Your task to perform on an android device: change the clock style Image 0: 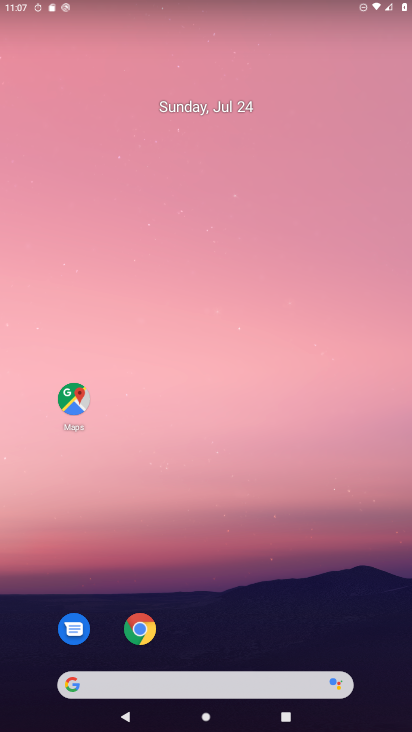
Step 0: drag from (211, 634) to (353, 150)
Your task to perform on an android device: change the clock style Image 1: 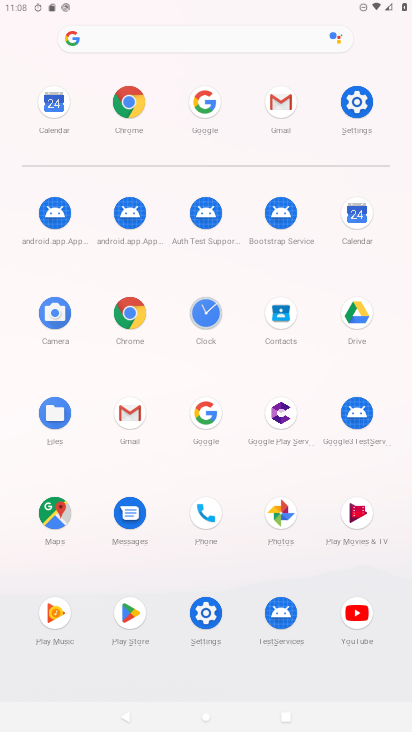
Step 1: click (211, 334)
Your task to perform on an android device: change the clock style Image 2: 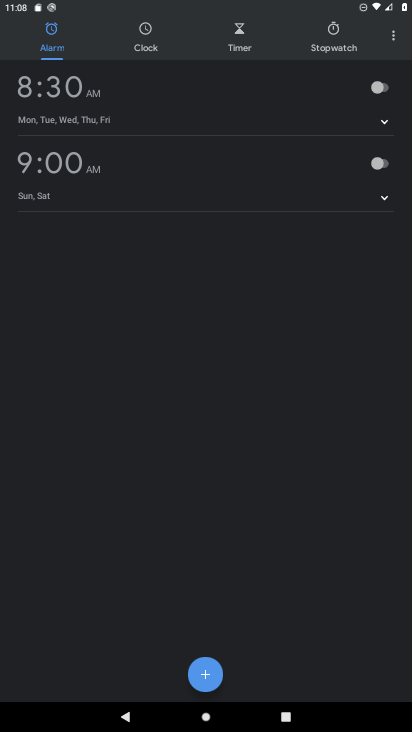
Step 2: click (398, 41)
Your task to perform on an android device: change the clock style Image 3: 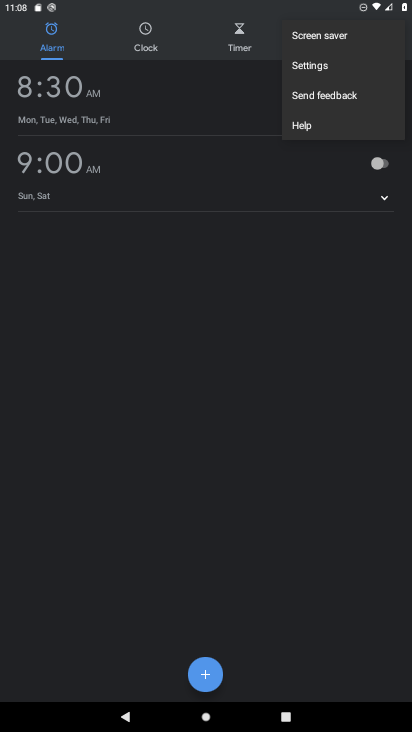
Step 3: click (298, 71)
Your task to perform on an android device: change the clock style Image 4: 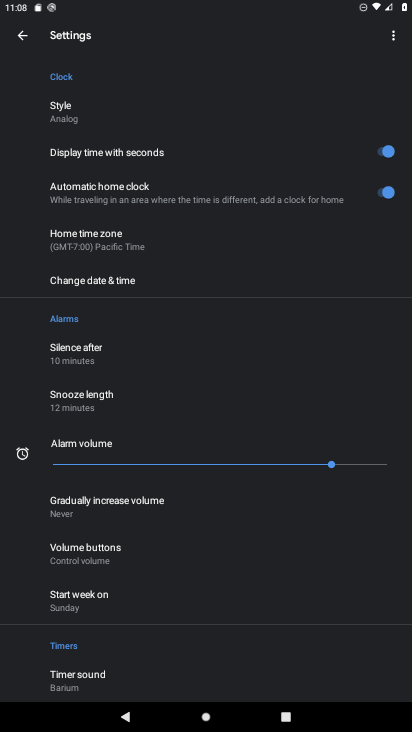
Step 4: click (126, 121)
Your task to perform on an android device: change the clock style Image 5: 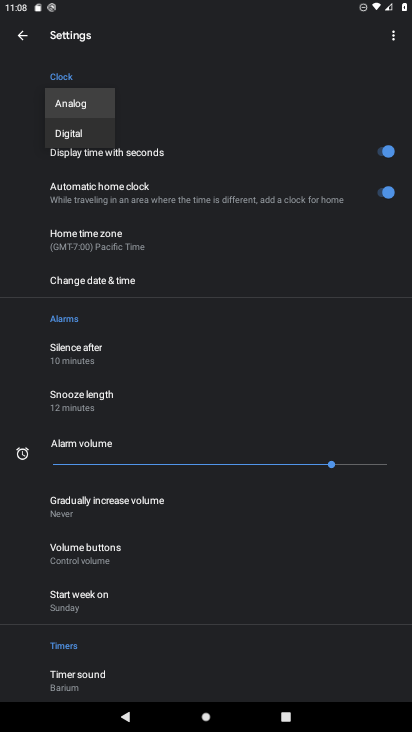
Step 5: click (96, 142)
Your task to perform on an android device: change the clock style Image 6: 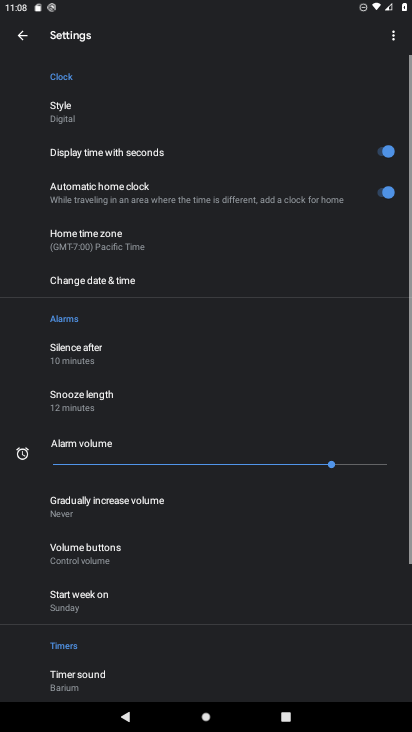
Step 6: task complete